Your task to perform on an android device: toggle notifications settings in the gmail app Image 0: 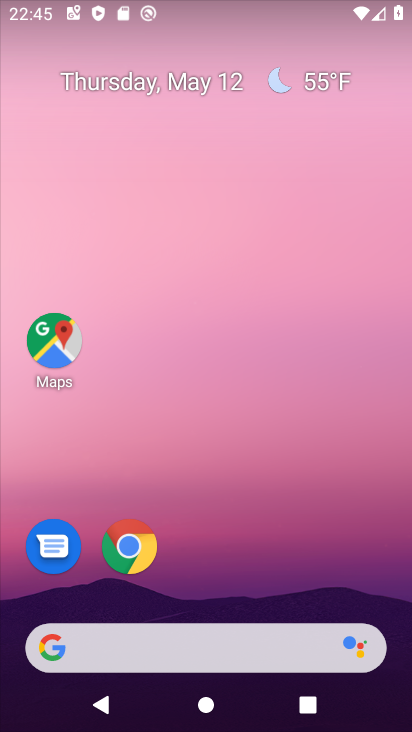
Step 0: drag from (302, 463) to (319, 125)
Your task to perform on an android device: toggle notifications settings in the gmail app Image 1: 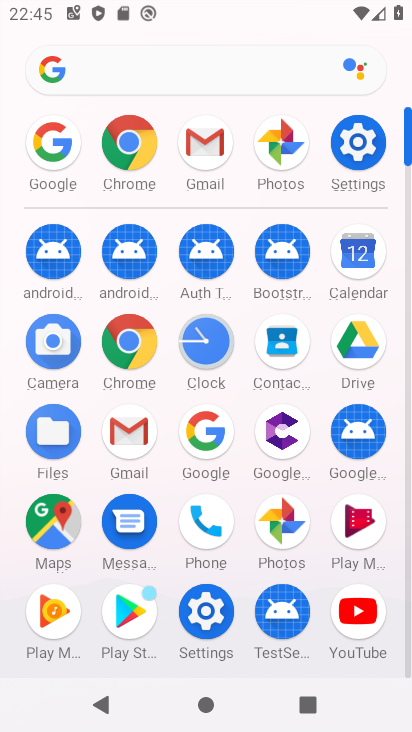
Step 1: click (196, 170)
Your task to perform on an android device: toggle notifications settings in the gmail app Image 2: 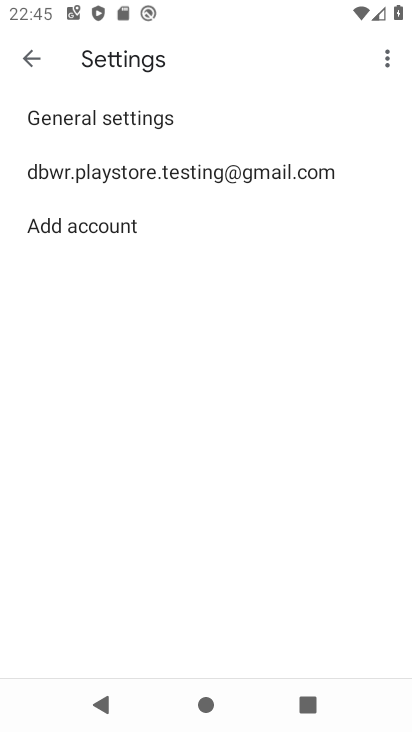
Step 2: click (228, 176)
Your task to perform on an android device: toggle notifications settings in the gmail app Image 3: 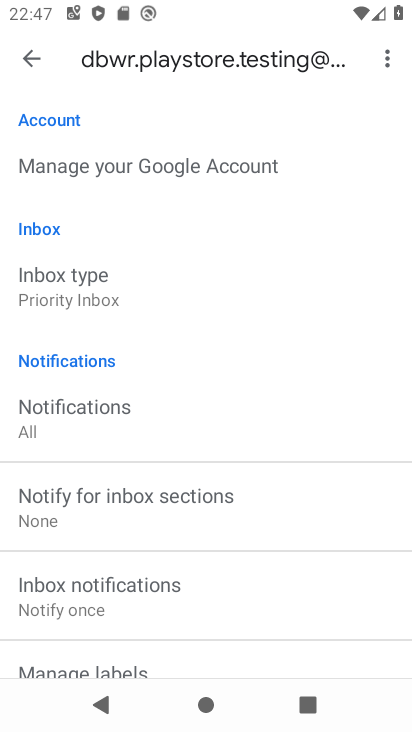
Step 3: click (73, 422)
Your task to perform on an android device: toggle notifications settings in the gmail app Image 4: 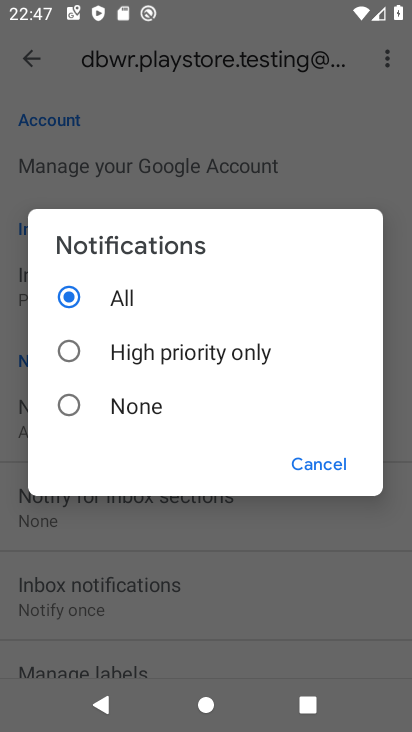
Step 4: click (86, 417)
Your task to perform on an android device: toggle notifications settings in the gmail app Image 5: 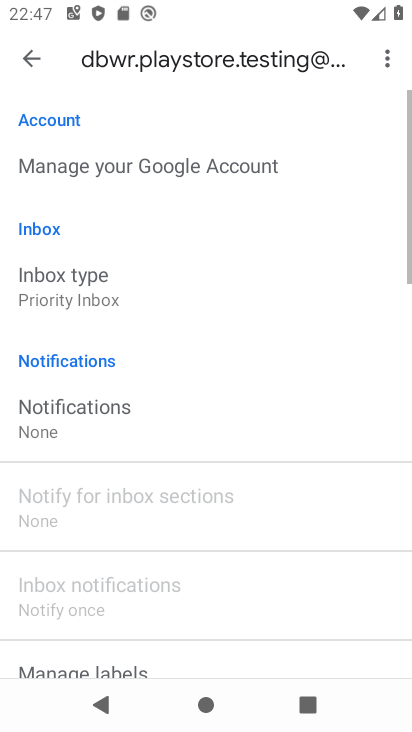
Step 5: task complete